Your task to perform on an android device: Search for pizza restaurants on Maps Image 0: 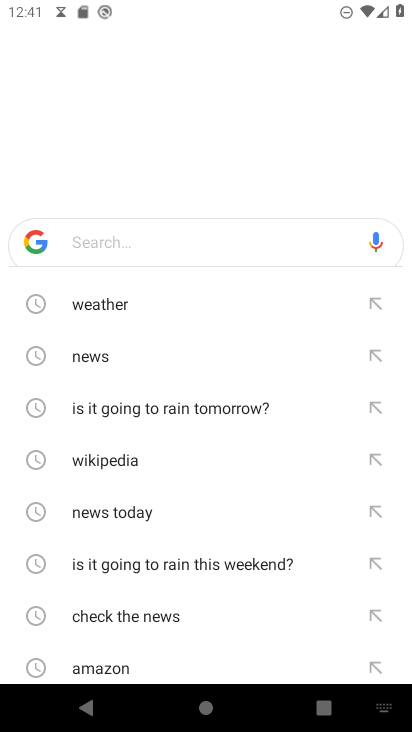
Step 0: press home button
Your task to perform on an android device: Search for pizza restaurants on Maps Image 1: 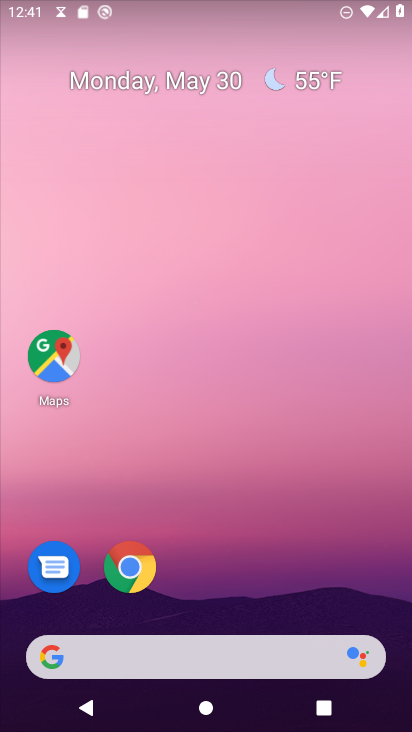
Step 1: drag from (215, 599) to (243, 0)
Your task to perform on an android device: Search for pizza restaurants on Maps Image 2: 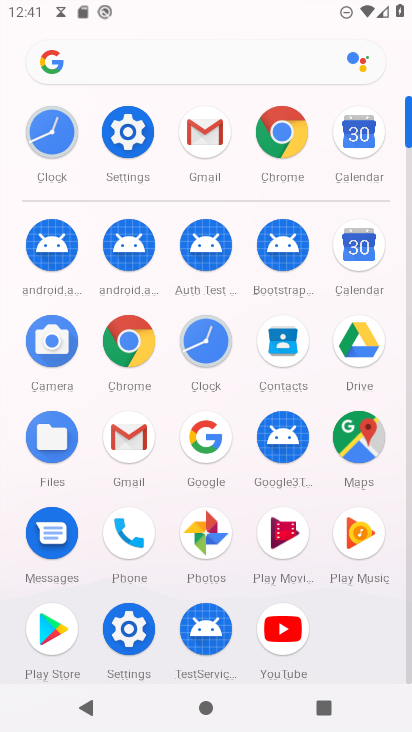
Step 2: click (357, 435)
Your task to perform on an android device: Search for pizza restaurants on Maps Image 3: 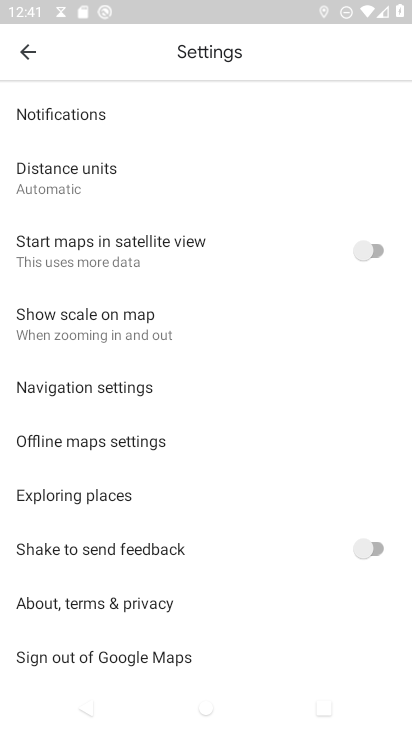
Step 3: click (38, 50)
Your task to perform on an android device: Search for pizza restaurants on Maps Image 4: 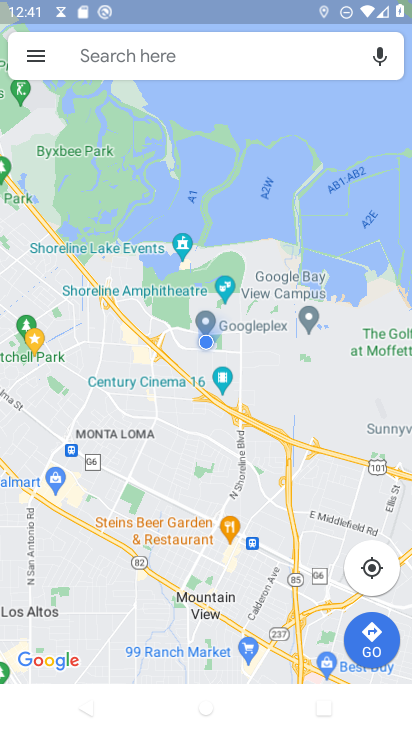
Step 4: click (111, 48)
Your task to perform on an android device: Search for pizza restaurants on Maps Image 5: 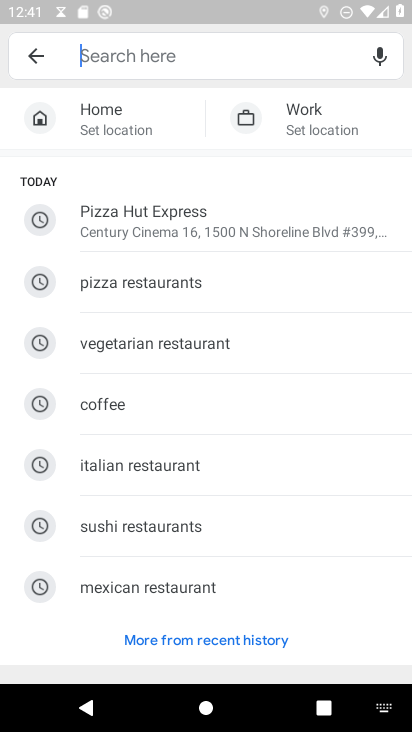
Step 5: click (121, 290)
Your task to perform on an android device: Search for pizza restaurants on Maps Image 6: 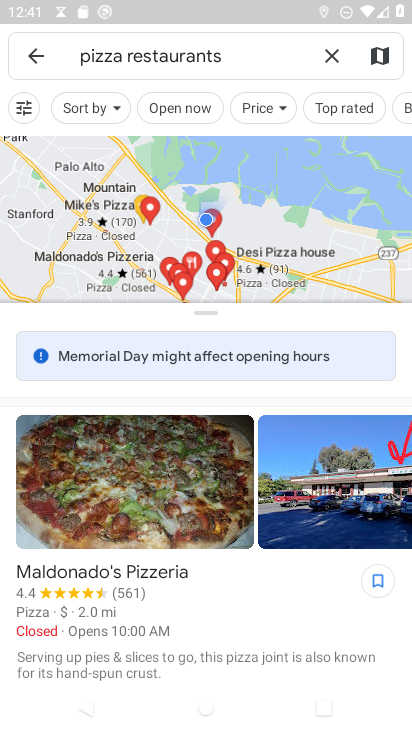
Step 6: task complete